Your task to perform on an android device: Go to eBay Image 0: 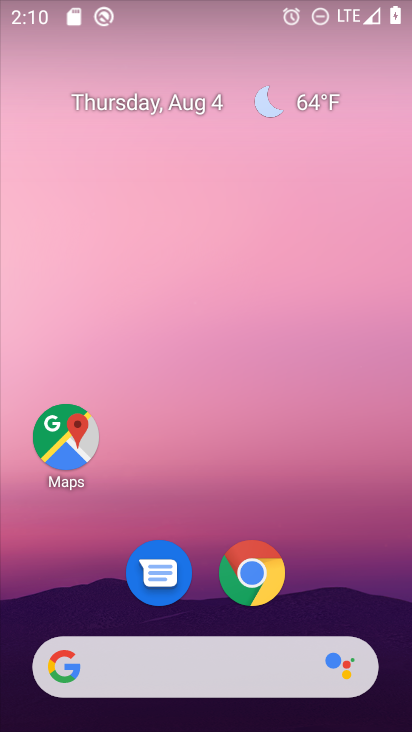
Step 0: drag from (322, 314) to (315, 193)
Your task to perform on an android device: Go to eBay Image 1: 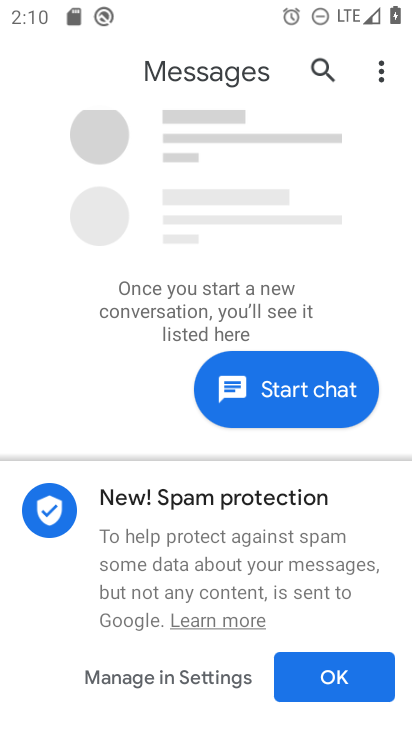
Step 1: press home button
Your task to perform on an android device: Go to eBay Image 2: 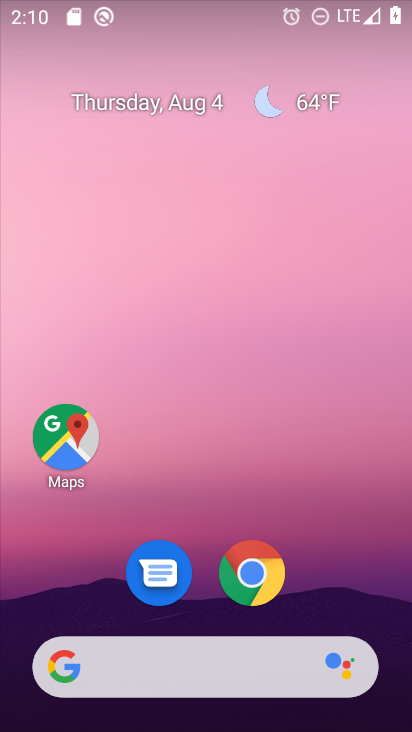
Step 2: drag from (405, 553) to (365, 151)
Your task to perform on an android device: Go to eBay Image 3: 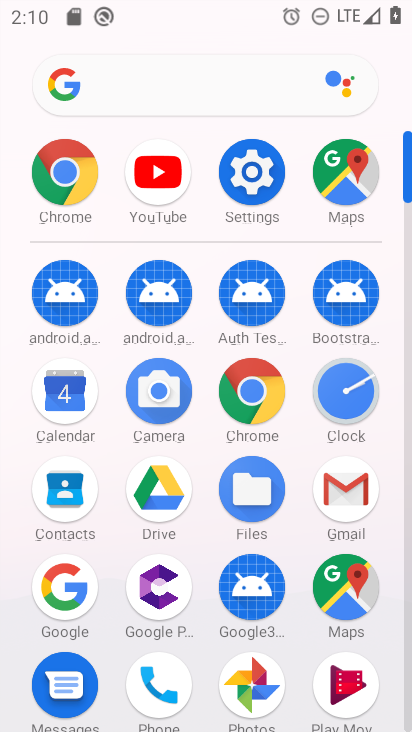
Step 3: click (261, 381)
Your task to perform on an android device: Go to eBay Image 4: 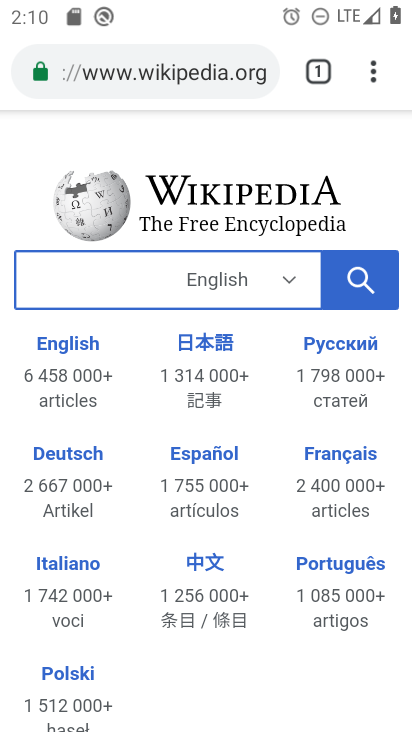
Step 4: click (242, 71)
Your task to perform on an android device: Go to eBay Image 5: 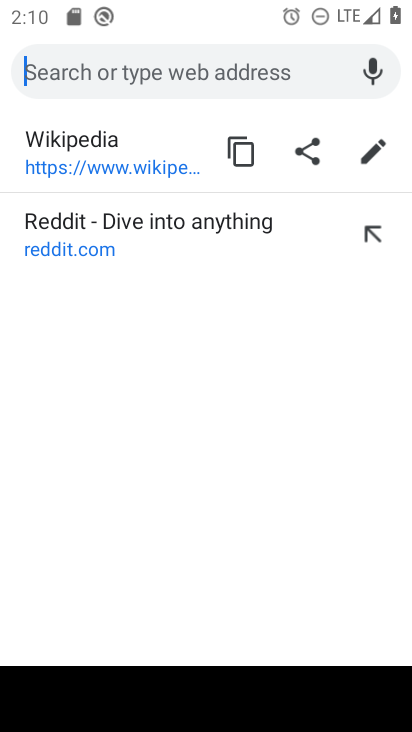
Step 5: type "eBay"
Your task to perform on an android device: Go to eBay Image 6: 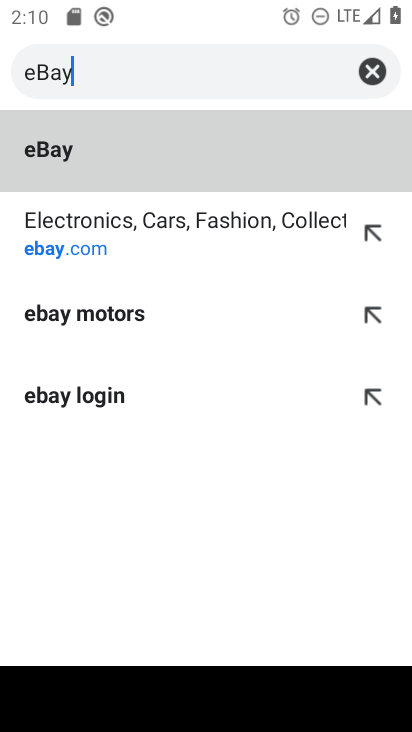
Step 6: click (43, 252)
Your task to perform on an android device: Go to eBay Image 7: 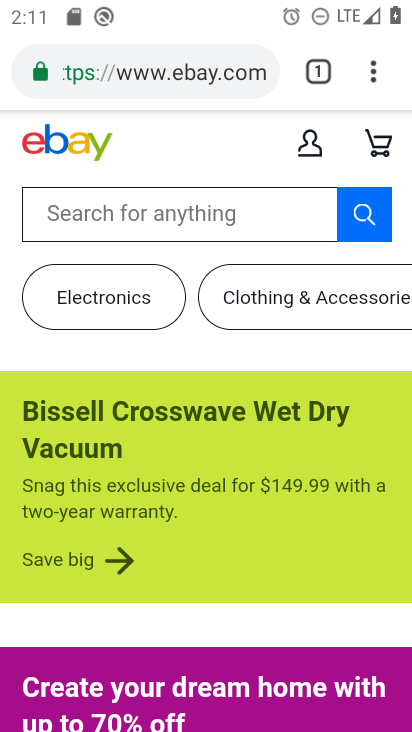
Step 7: task complete